Your task to perform on an android device: Show me recent news Image 0: 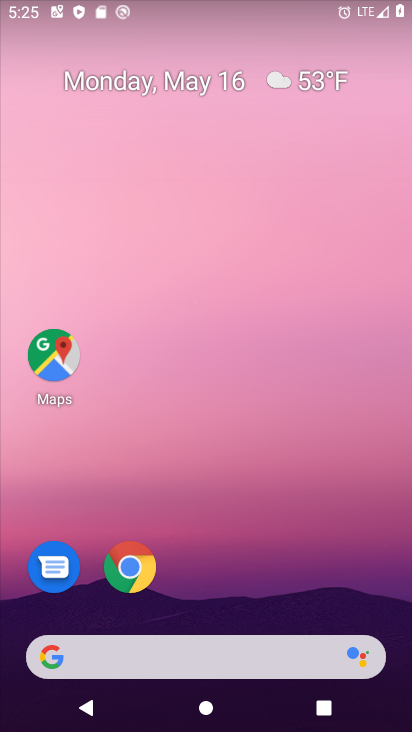
Step 0: drag from (232, 678) to (202, 112)
Your task to perform on an android device: Show me recent news Image 1: 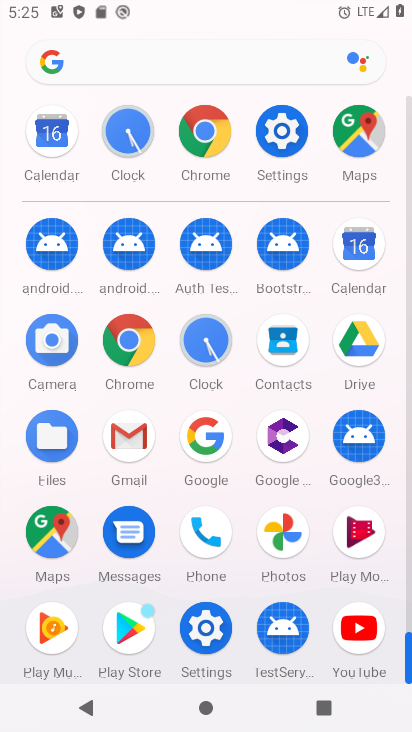
Step 1: click (137, 346)
Your task to perform on an android device: Show me recent news Image 2: 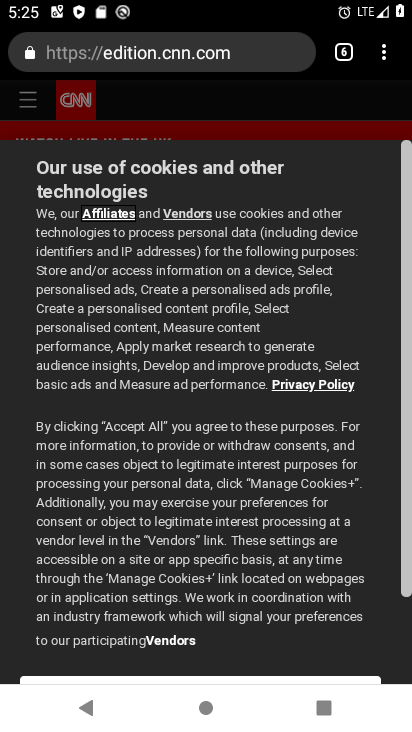
Step 2: click (175, 43)
Your task to perform on an android device: Show me recent news Image 3: 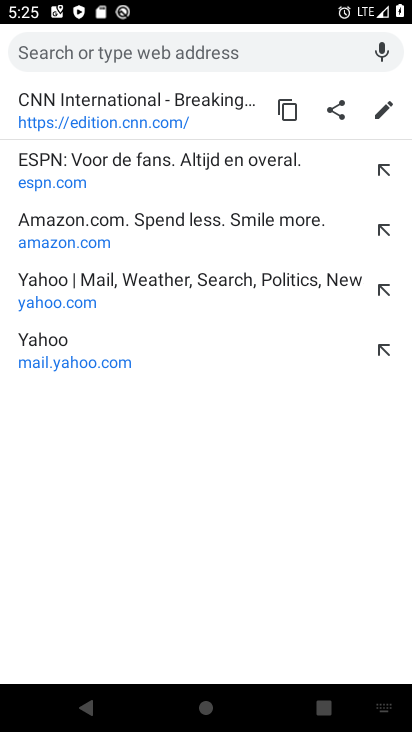
Step 3: type "show me recent news"
Your task to perform on an android device: Show me recent news Image 4: 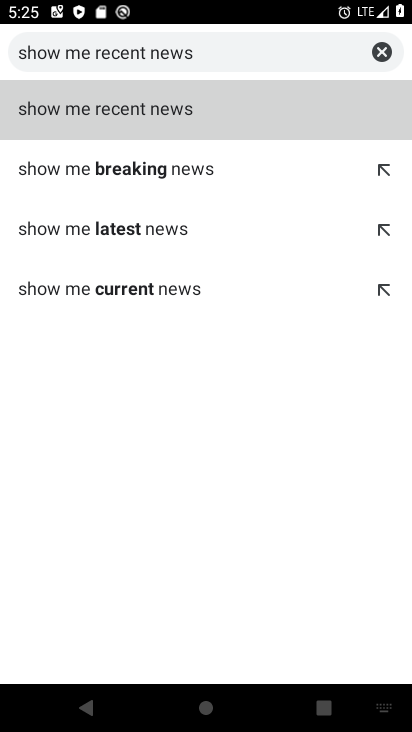
Step 4: click (178, 125)
Your task to perform on an android device: Show me recent news Image 5: 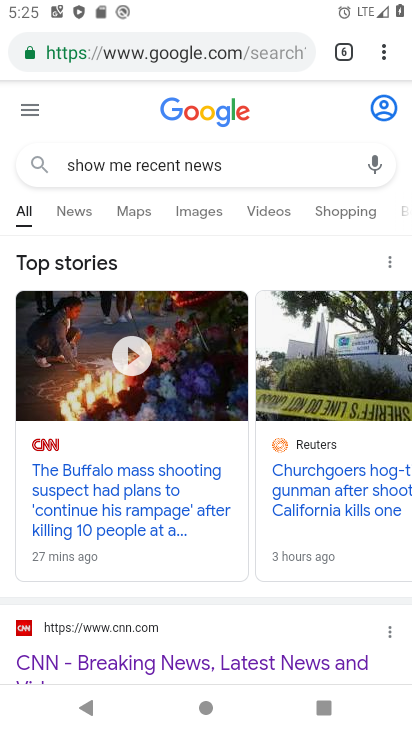
Step 5: task complete